Your task to perform on an android device: Open Amazon Image 0: 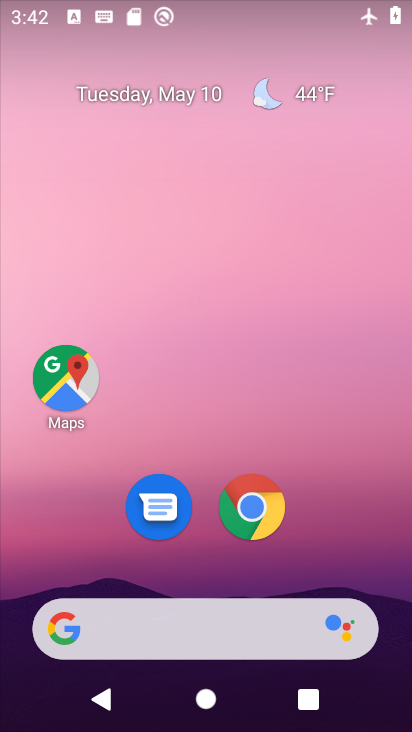
Step 0: click (253, 504)
Your task to perform on an android device: Open Amazon Image 1: 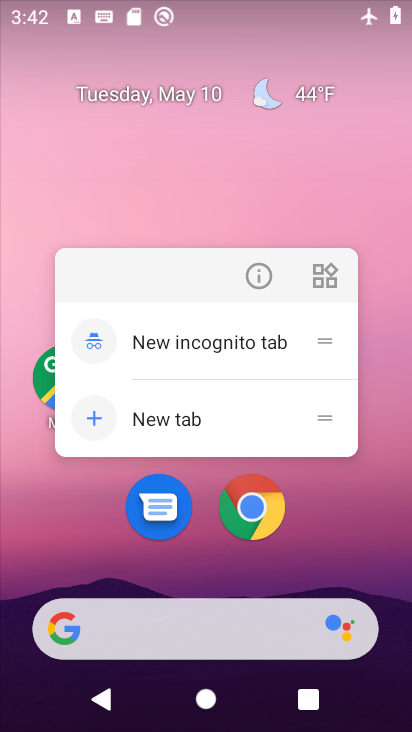
Step 1: click (265, 274)
Your task to perform on an android device: Open Amazon Image 2: 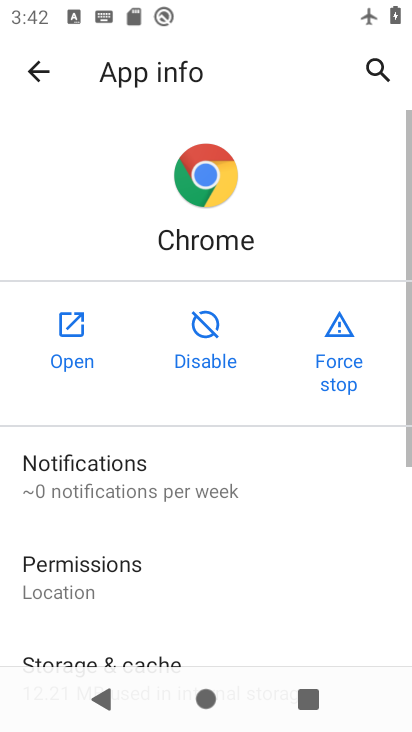
Step 2: click (82, 354)
Your task to perform on an android device: Open Amazon Image 3: 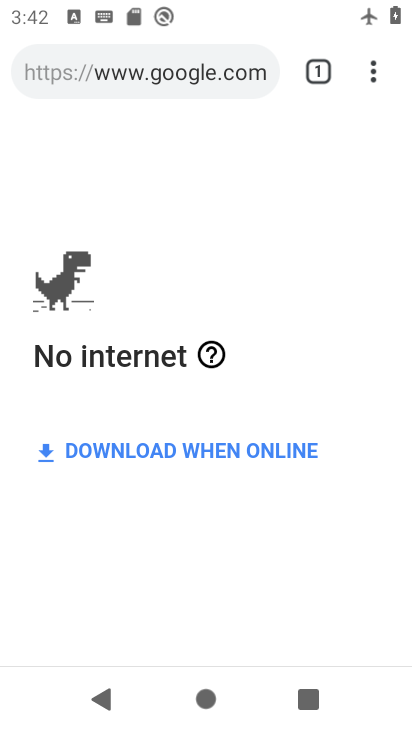
Step 3: click (146, 72)
Your task to perform on an android device: Open Amazon Image 4: 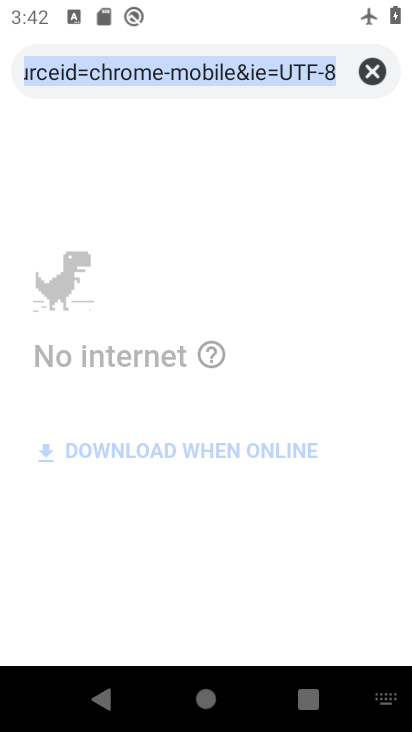
Step 4: type "Amazon"
Your task to perform on an android device: Open Amazon Image 5: 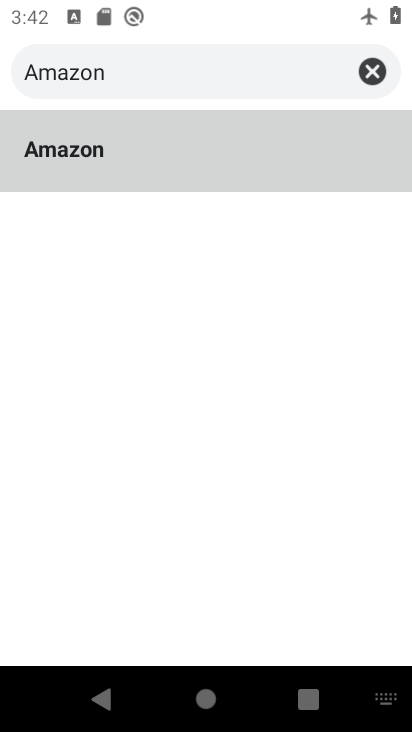
Step 5: click (72, 136)
Your task to perform on an android device: Open Amazon Image 6: 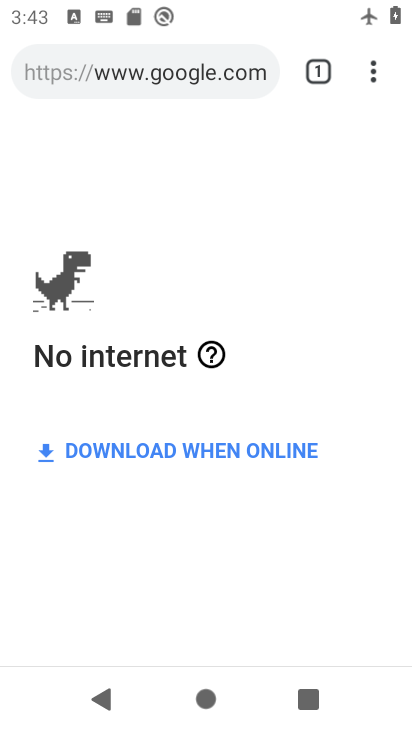
Step 6: click (176, 122)
Your task to perform on an android device: Open Amazon Image 7: 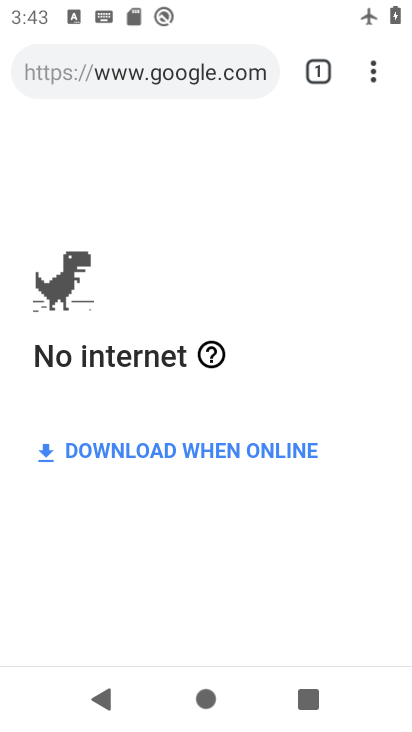
Step 7: task complete